Your task to perform on an android device: When is my next appointment? Image 0: 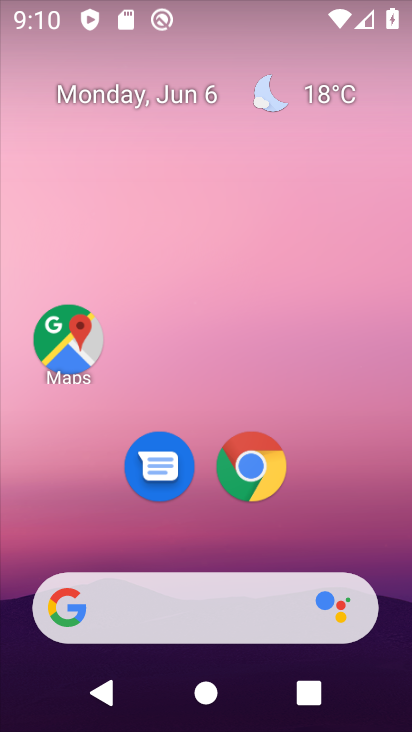
Step 0: drag from (218, 545) to (257, 101)
Your task to perform on an android device: When is my next appointment? Image 1: 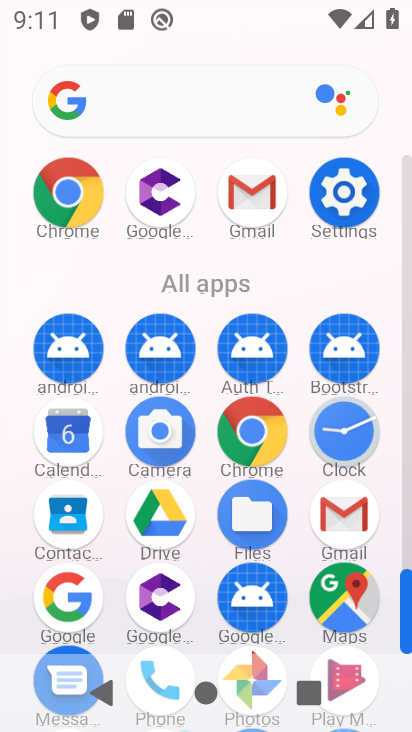
Step 1: click (69, 443)
Your task to perform on an android device: When is my next appointment? Image 2: 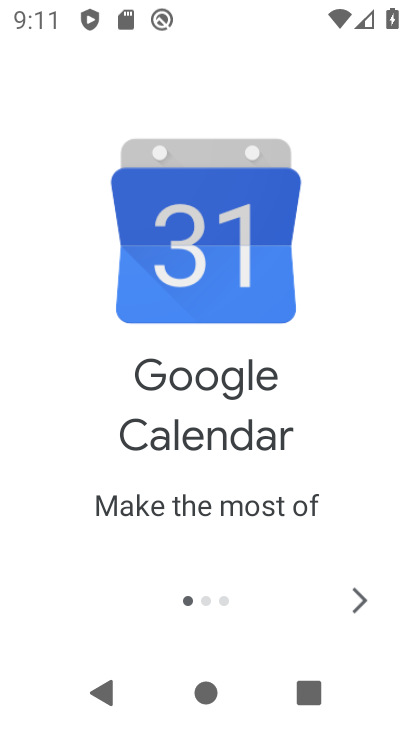
Step 2: click (353, 603)
Your task to perform on an android device: When is my next appointment? Image 3: 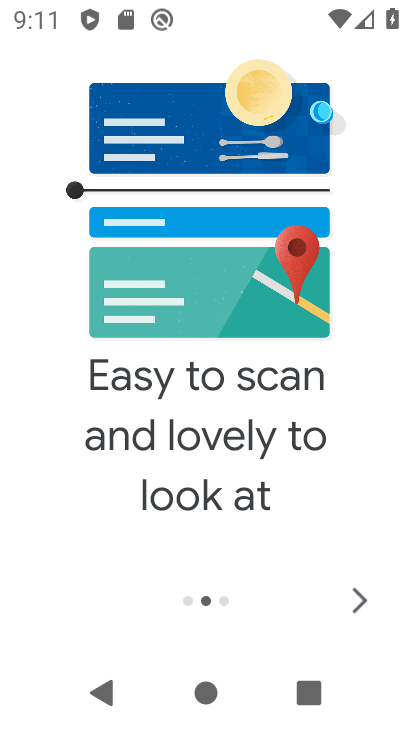
Step 3: click (353, 603)
Your task to perform on an android device: When is my next appointment? Image 4: 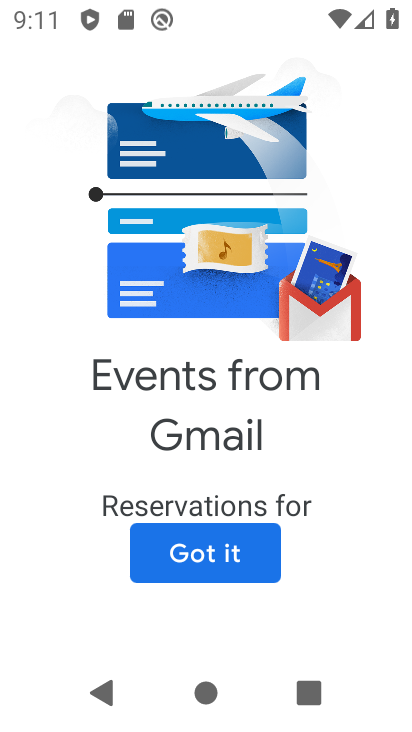
Step 4: click (180, 556)
Your task to perform on an android device: When is my next appointment? Image 5: 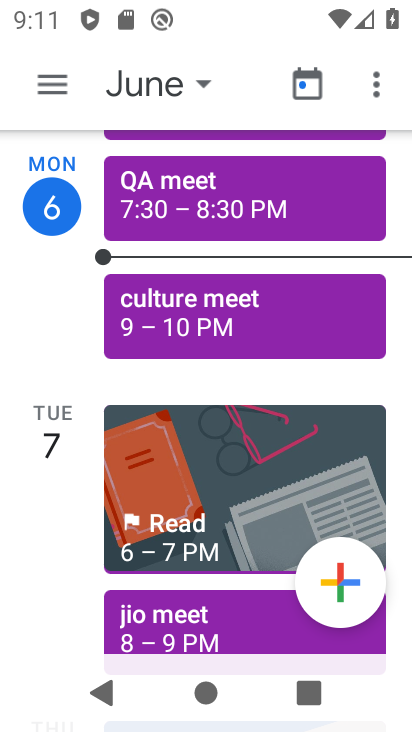
Step 5: task complete